Your task to perform on an android device: turn notification dots off Image 0: 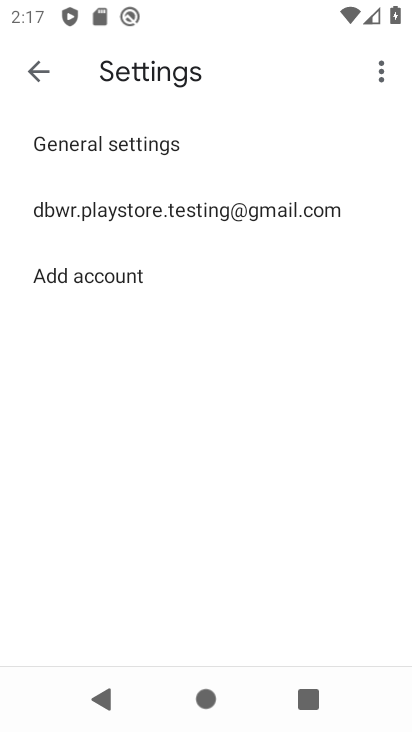
Step 0: press home button
Your task to perform on an android device: turn notification dots off Image 1: 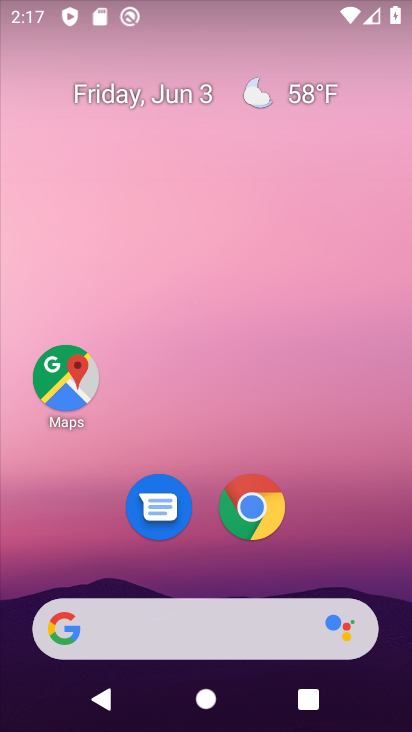
Step 1: drag from (295, 516) to (351, 74)
Your task to perform on an android device: turn notification dots off Image 2: 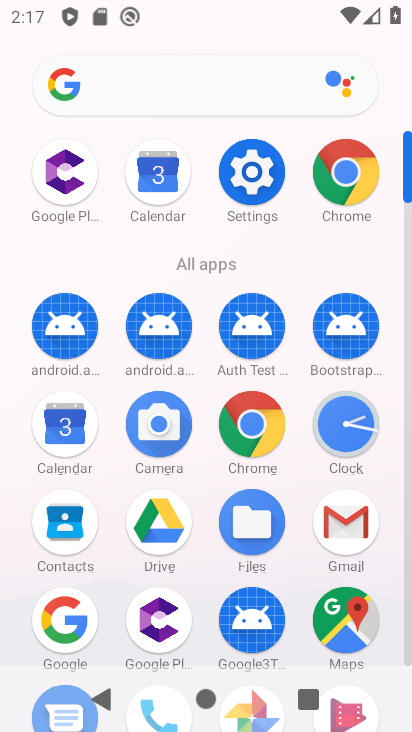
Step 2: click (258, 168)
Your task to perform on an android device: turn notification dots off Image 3: 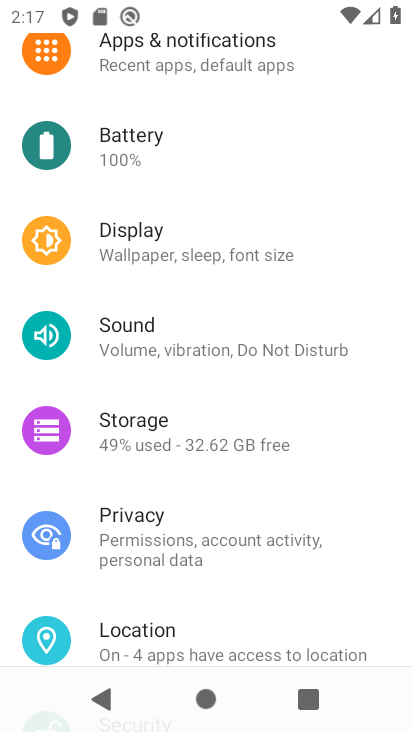
Step 3: click (157, 62)
Your task to perform on an android device: turn notification dots off Image 4: 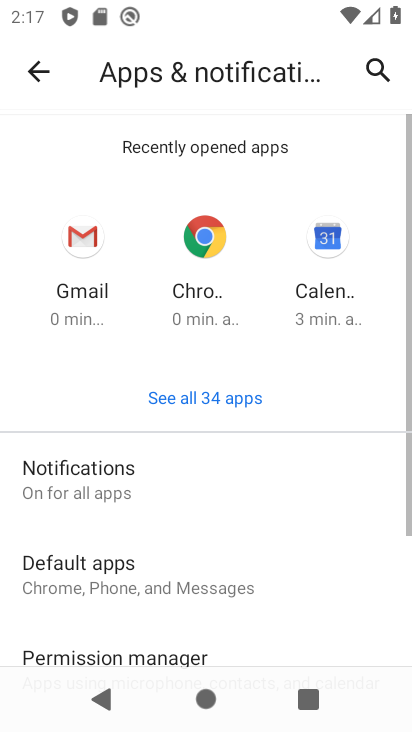
Step 4: click (133, 477)
Your task to perform on an android device: turn notification dots off Image 5: 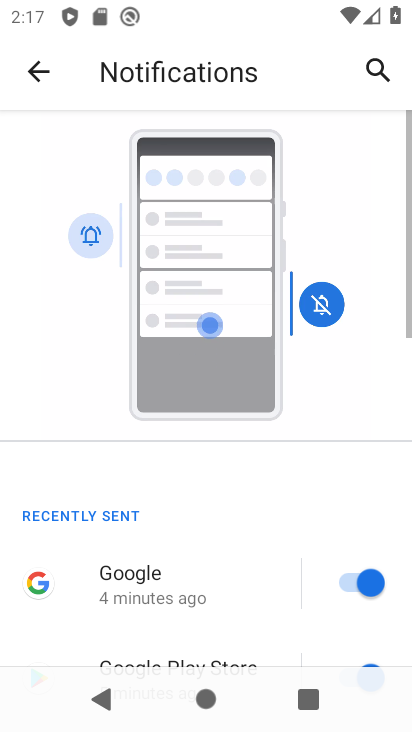
Step 5: drag from (285, 563) to (269, 0)
Your task to perform on an android device: turn notification dots off Image 6: 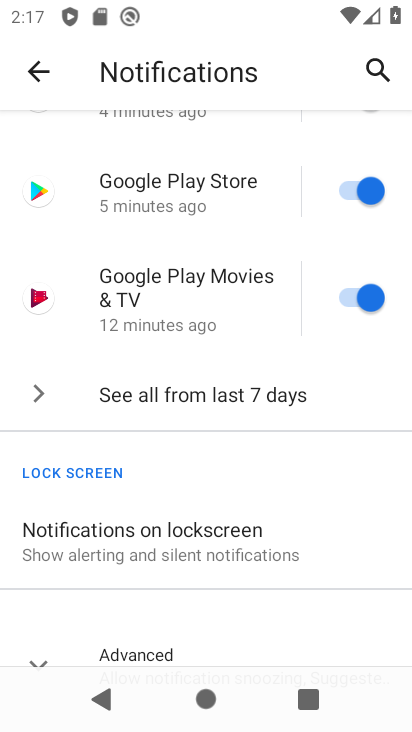
Step 6: drag from (171, 606) to (178, 156)
Your task to perform on an android device: turn notification dots off Image 7: 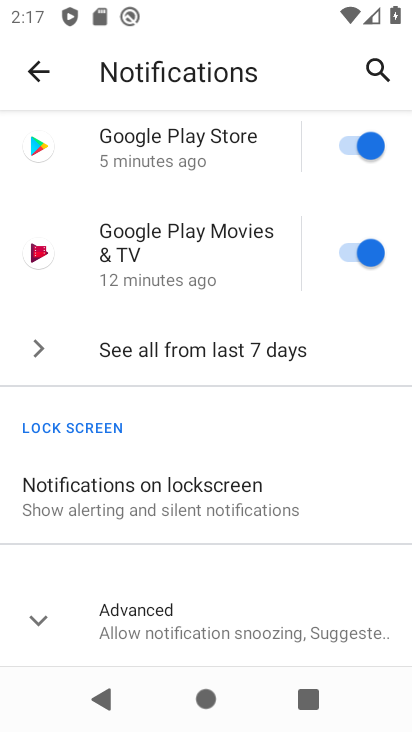
Step 7: click (142, 620)
Your task to perform on an android device: turn notification dots off Image 8: 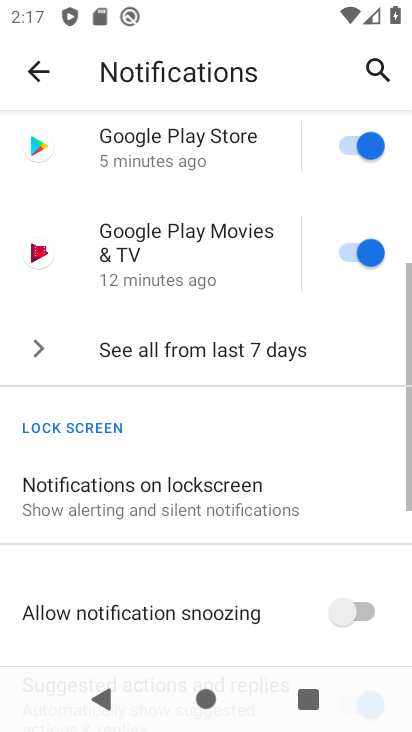
Step 8: drag from (252, 535) to (290, 161)
Your task to perform on an android device: turn notification dots off Image 9: 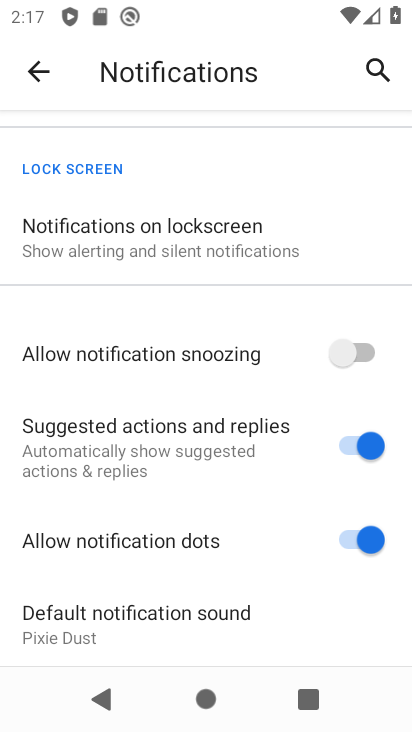
Step 9: click (362, 541)
Your task to perform on an android device: turn notification dots off Image 10: 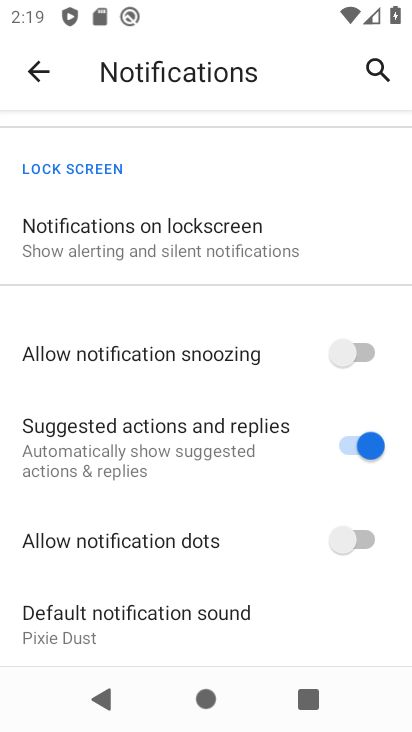
Step 10: task complete